Your task to perform on an android device: turn off notifications in google photos Image 0: 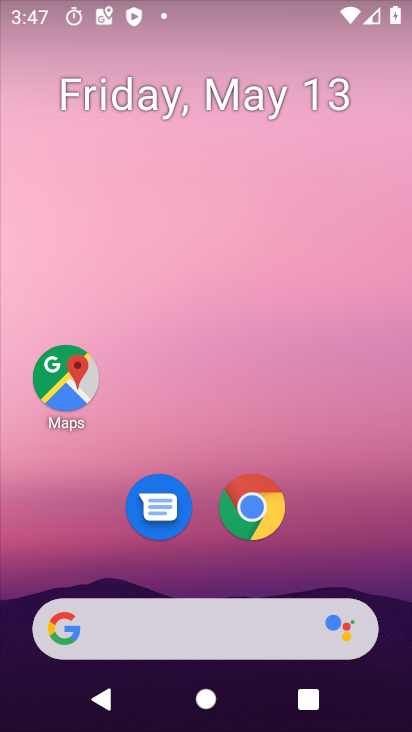
Step 0: drag from (228, 583) to (250, 127)
Your task to perform on an android device: turn off notifications in google photos Image 1: 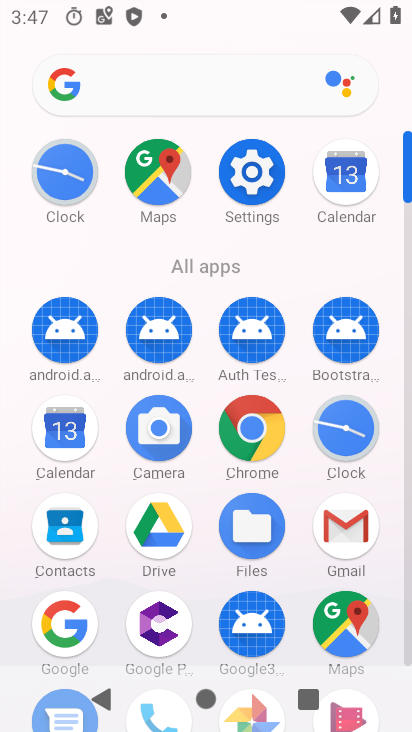
Step 1: drag from (220, 571) to (271, 166)
Your task to perform on an android device: turn off notifications in google photos Image 2: 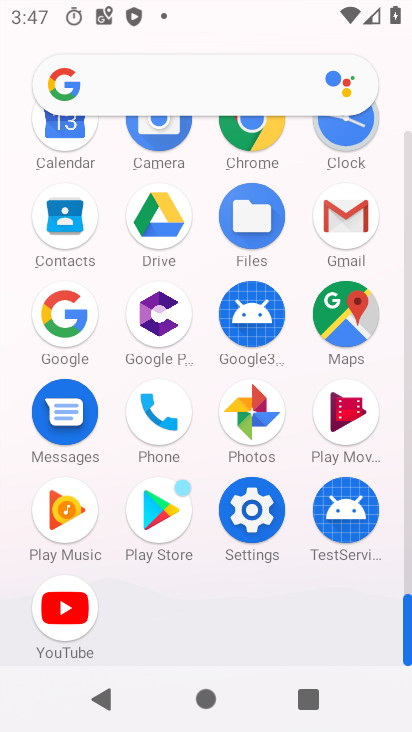
Step 2: click (256, 406)
Your task to perform on an android device: turn off notifications in google photos Image 3: 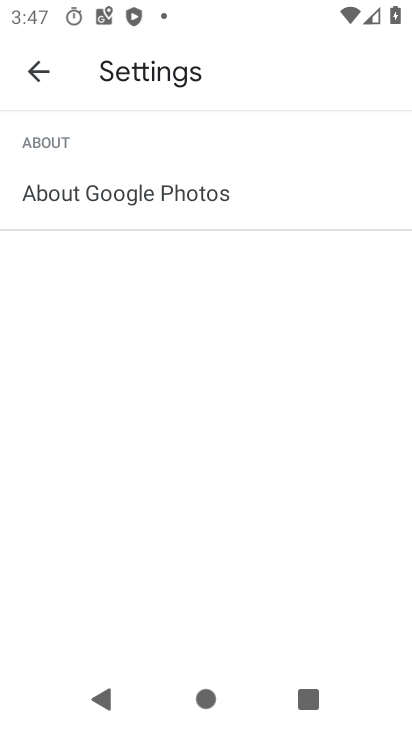
Step 3: click (8, 57)
Your task to perform on an android device: turn off notifications in google photos Image 4: 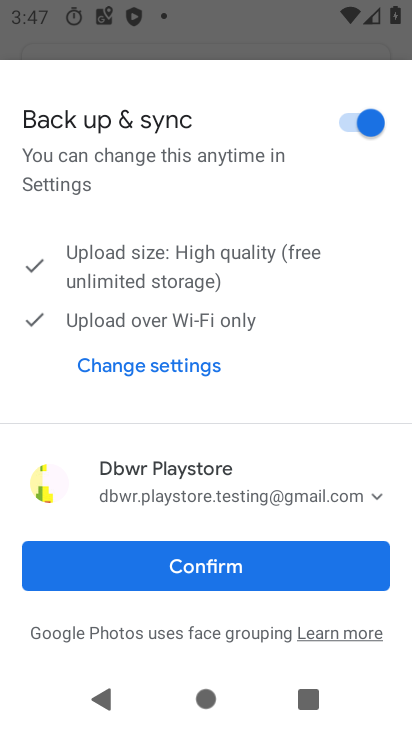
Step 4: click (273, 573)
Your task to perform on an android device: turn off notifications in google photos Image 5: 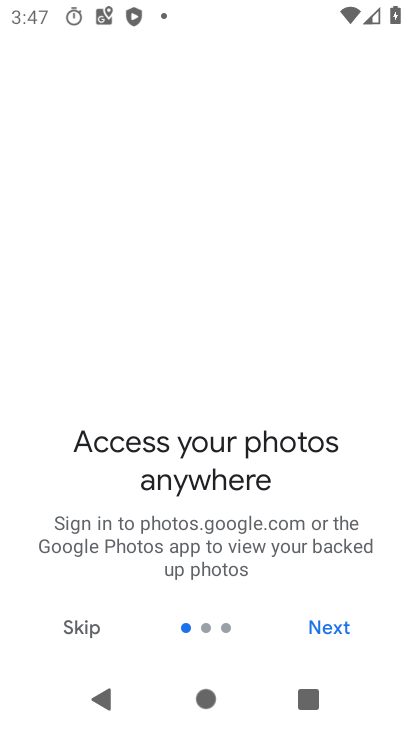
Step 5: click (330, 615)
Your task to perform on an android device: turn off notifications in google photos Image 6: 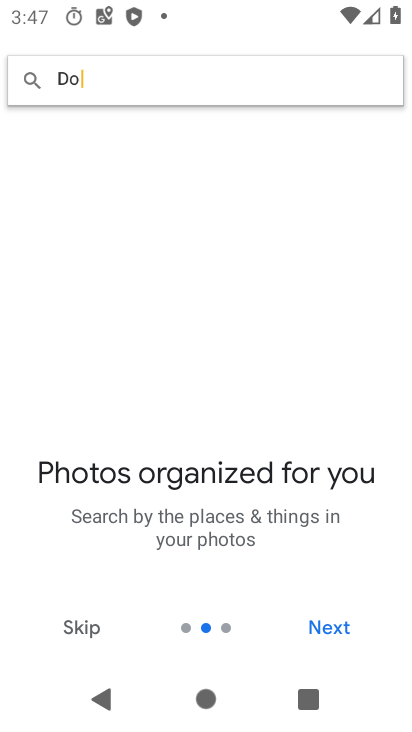
Step 6: click (331, 625)
Your task to perform on an android device: turn off notifications in google photos Image 7: 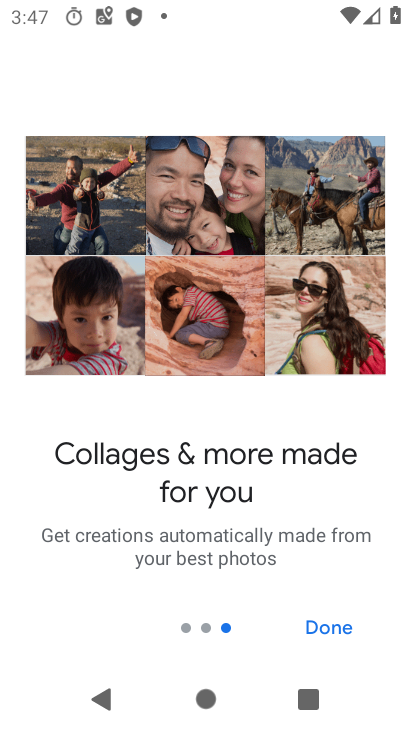
Step 7: click (330, 623)
Your task to perform on an android device: turn off notifications in google photos Image 8: 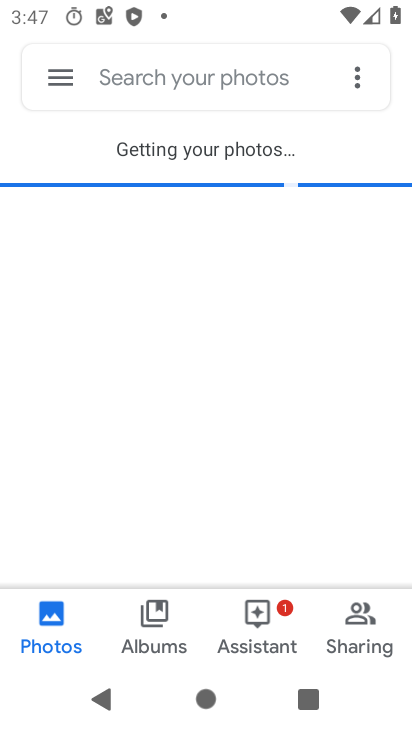
Step 8: click (348, 76)
Your task to perform on an android device: turn off notifications in google photos Image 9: 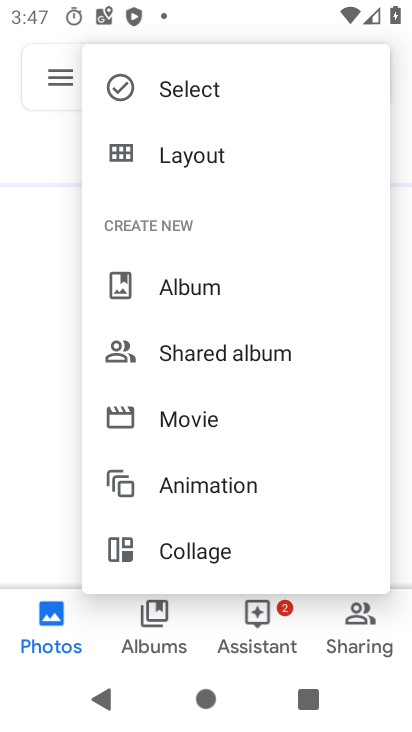
Step 9: click (37, 341)
Your task to perform on an android device: turn off notifications in google photos Image 10: 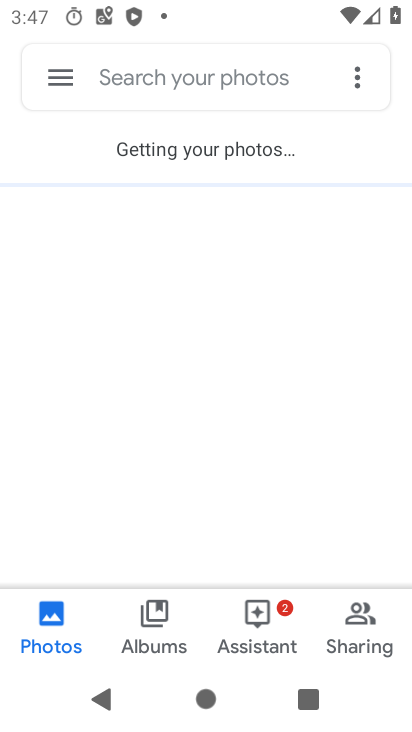
Step 10: click (63, 79)
Your task to perform on an android device: turn off notifications in google photos Image 11: 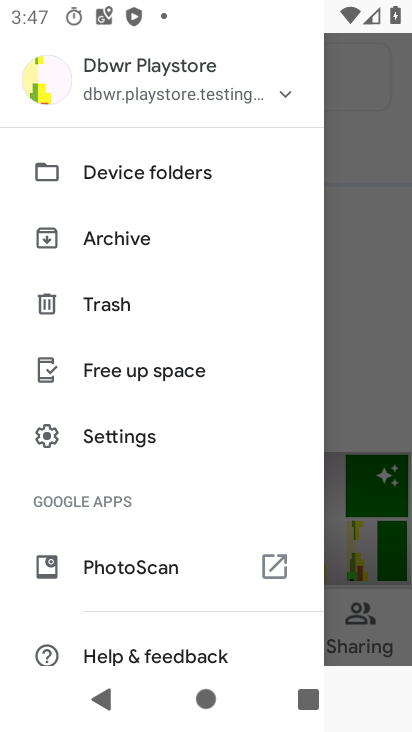
Step 11: drag from (153, 506) to (200, 127)
Your task to perform on an android device: turn off notifications in google photos Image 12: 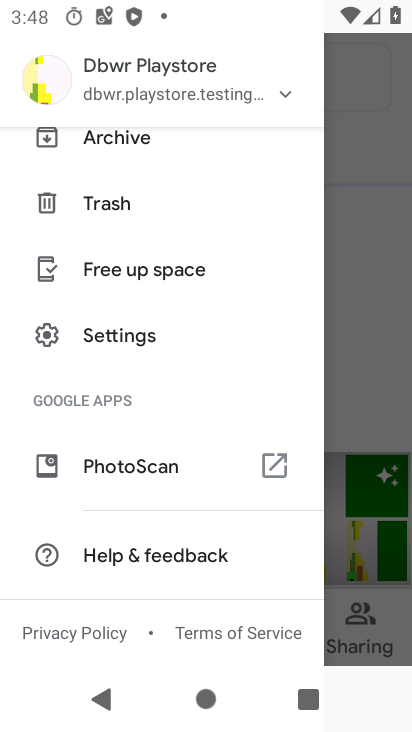
Step 12: click (174, 356)
Your task to perform on an android device: turn off notifications in google photos Image 13: 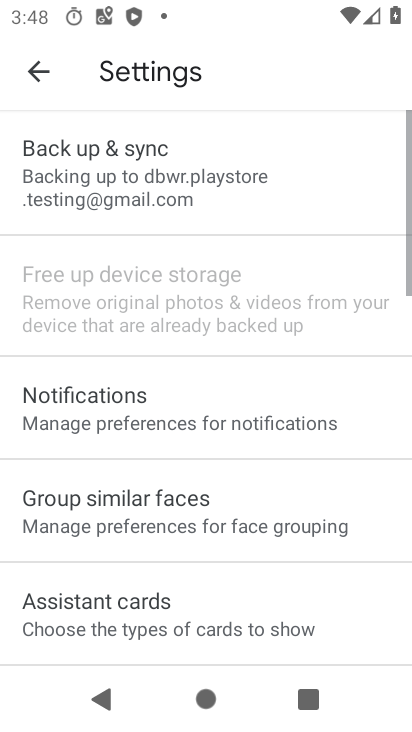
Step 13: click (198, 429)
Your task to perform on an android device: turn off notifications in google photos Image 14: 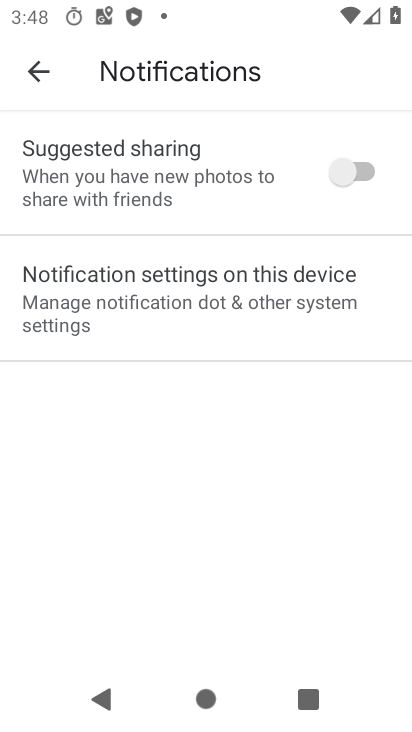
Step 14: click (334, 295)
Your task to perform on an android device: turn off notifications in google photos Image 15: 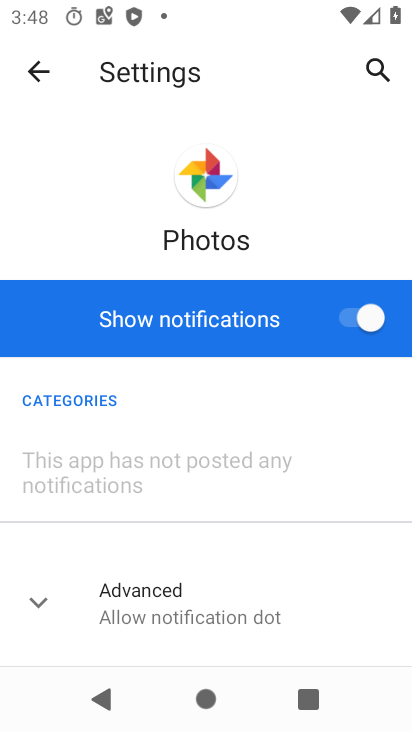
Step 15: click (353, 324)
Your task to perform on an android device: turn off notifications in google photos Image 16: 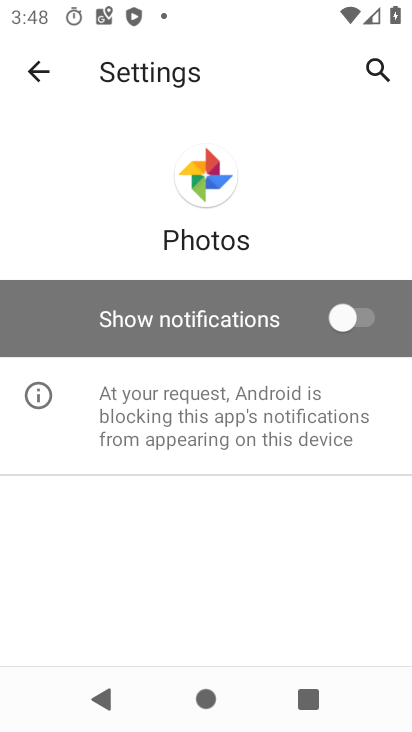
Step 16: task complete